Your task to perform on an android device: Open display settings Image 0: 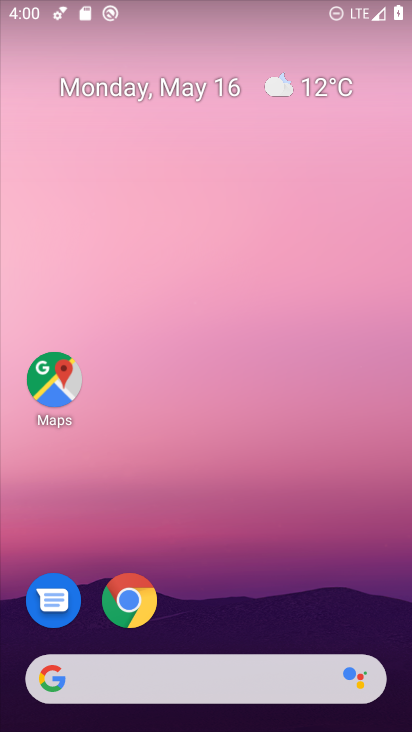
Step 0: drag from (201, 473) to (214, 39)
Your task to perform on an android device: Open display settings Image 1: 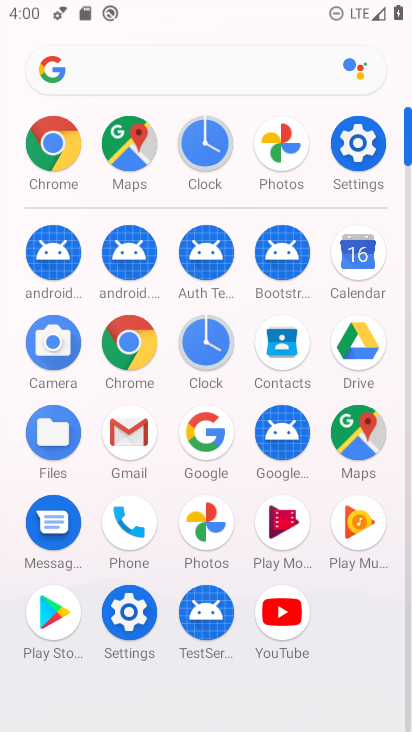
Step 1: click (356, 135)
Your task to perform on an android device: Open display settings Image 2: 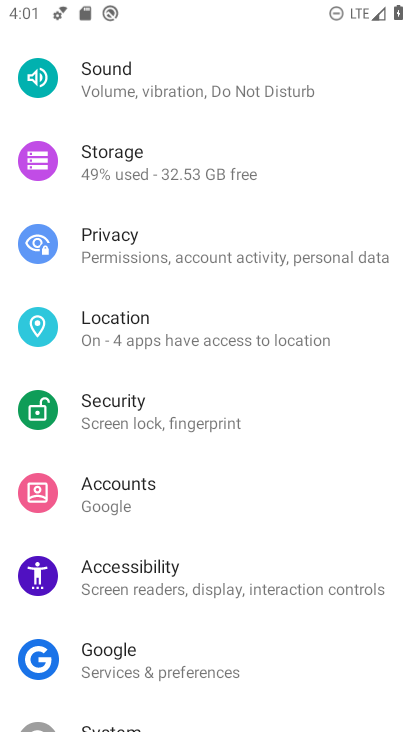
Step 2: drag from (260, 217) to (285, 620)
Your task to perform on an android device: Open display settings Image 3: 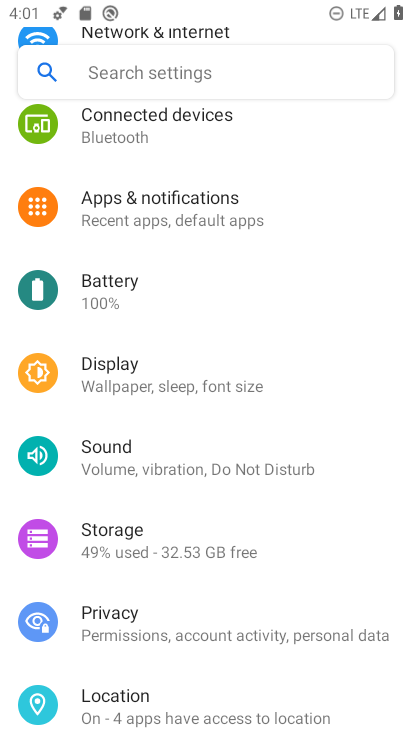
Step 3: click (149, 353)
Your task to perform on an android device: Open display settings Image 4: 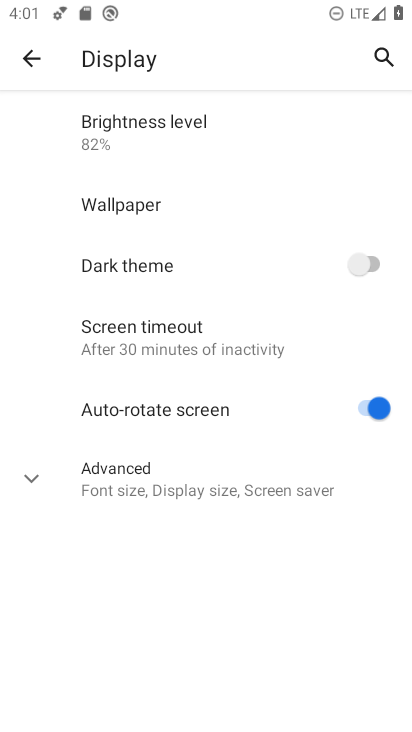
Step 4: press home button
Your task to perform on an android device: Open display settings Image 5: 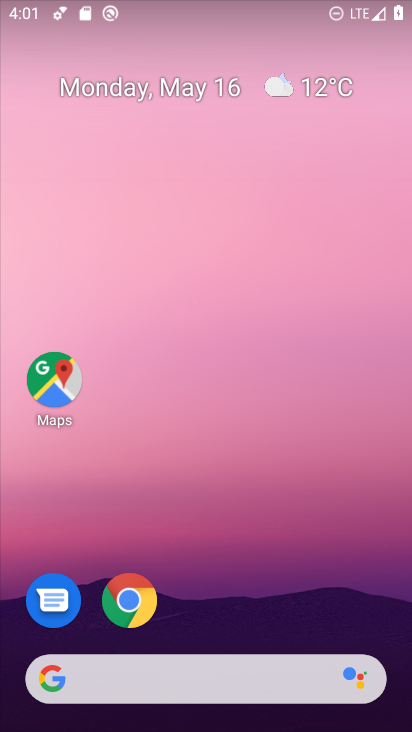
Step 5: drag from (269, 435) to (260, 84)
Your task to perform on an android device: Open display settings Image 6: 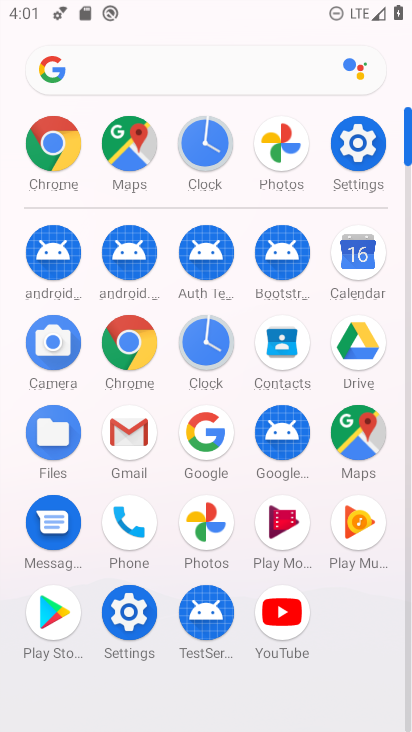
Step 6: click (371, 138)
Your task to perform on an android device: Open display settings Image 7: 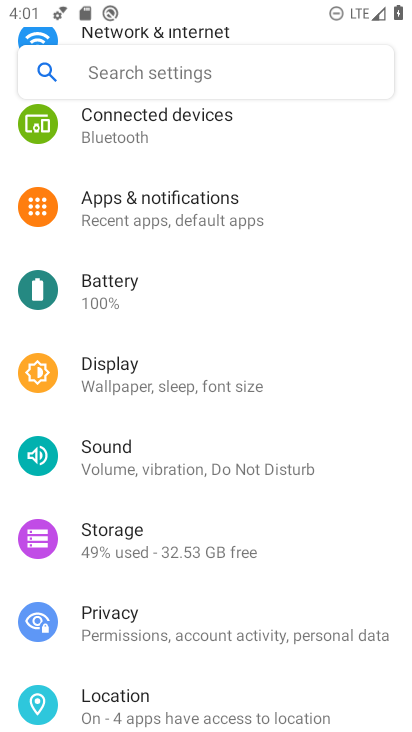
Step 7: click (160, 363)
Your task to perform on an android device: Open display settings Image 8: 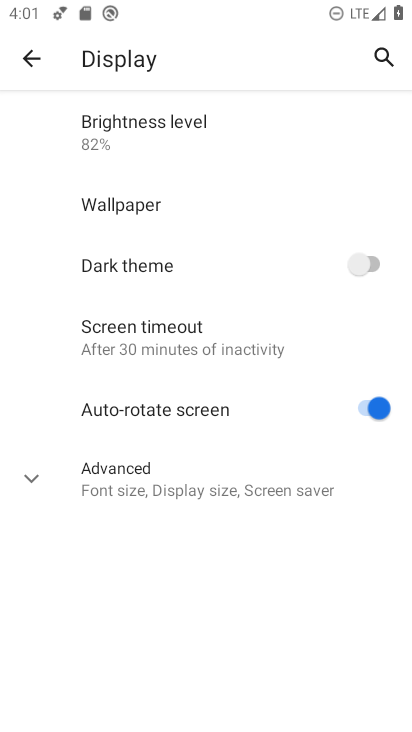
Step 8: task complete